Your task to perform on an android device: Search for sushi restaurants on Maps Image 0: 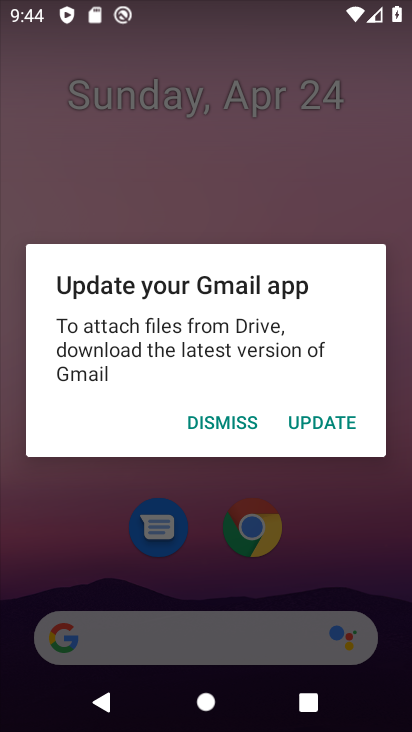
Step 0: click (210, 421)
Your task to perform on an android device: Search for sushi restaurants on Maps Image 1: 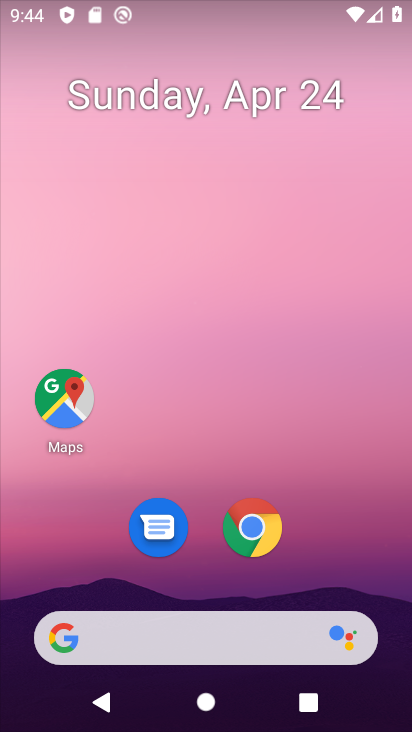
Step 1: click (78, 403)
Your task to perform on an android device: Search for sushi restaurants on Maps Image 2: 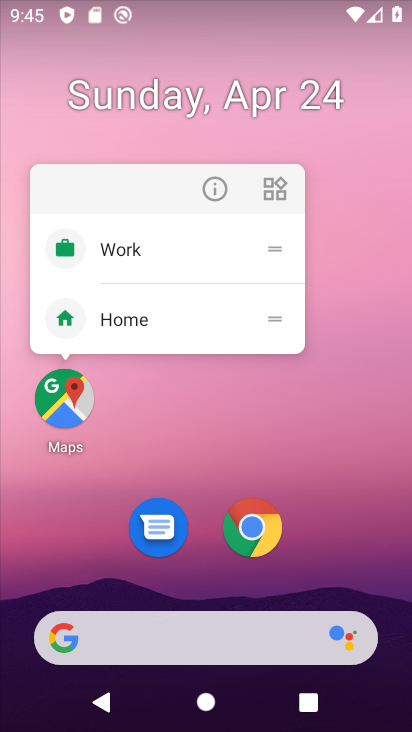
Step 2: click (64, 401)
Your task to perform on an android device: Search for sushi restaurants on Maps Image 3: 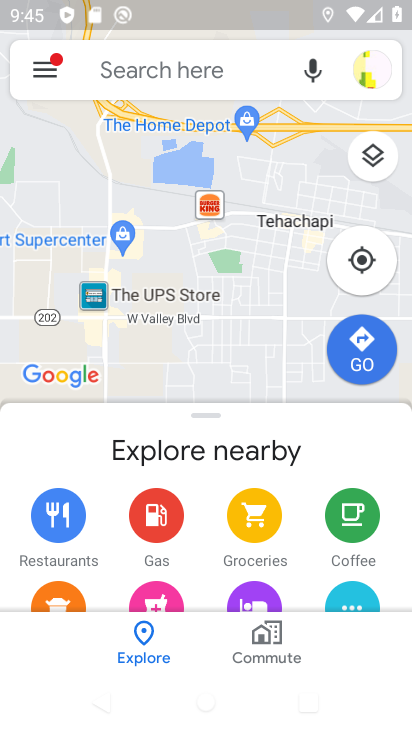
Step 3: click (178, 84)
Your task to perform on an android device: Search for sushi restaurants on Maps Image 4: 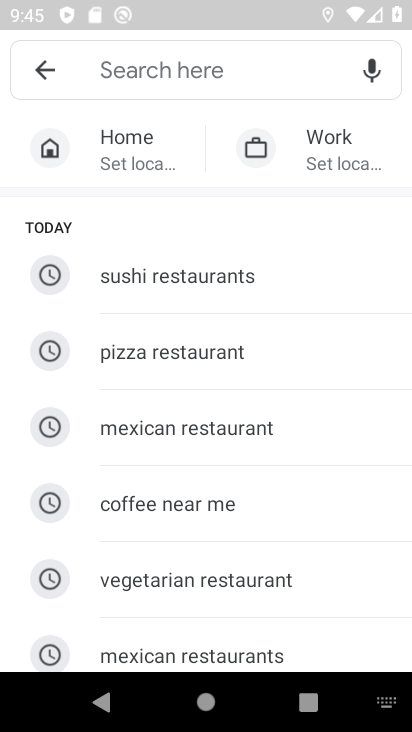
Step 4: click (179, 277)
Your task to perform on an android device: Search for sushi restaurants on Maps Image 5: 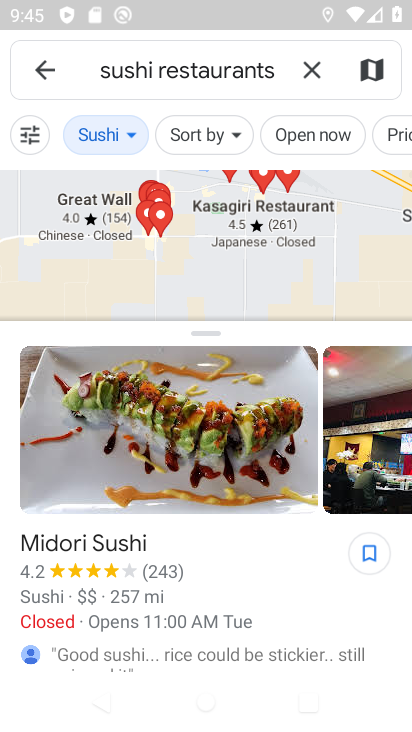
Step 5: task complete